Your task to perform on an android device: turn off smart reply in the gmail app Image 0: 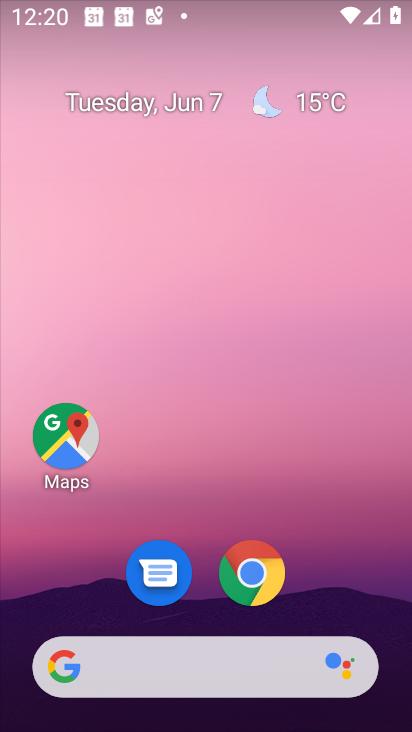
Step 0: press home button
Your task to perform on an android device: turn off smart reply in the gmail app Image 1: 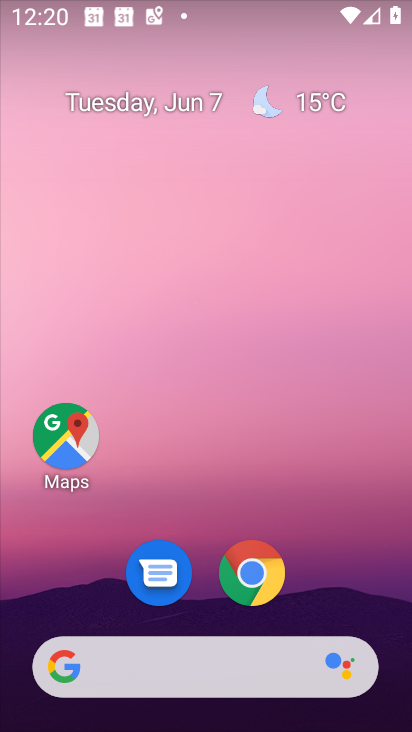
Step 1: drag from (355, 585) to (333, 186)
Your task to perform on an android device: turn off smart reply in the gmail app Image 2: 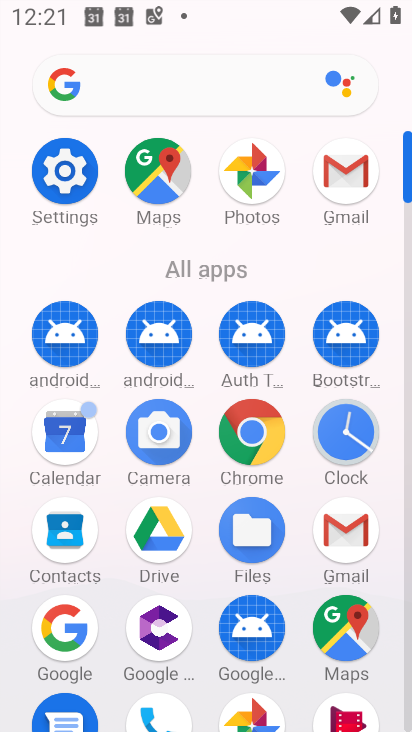
Step 2: click (350, 181)
Your task to perform on an android device: turn off smart reply in the gmail app Image 3: 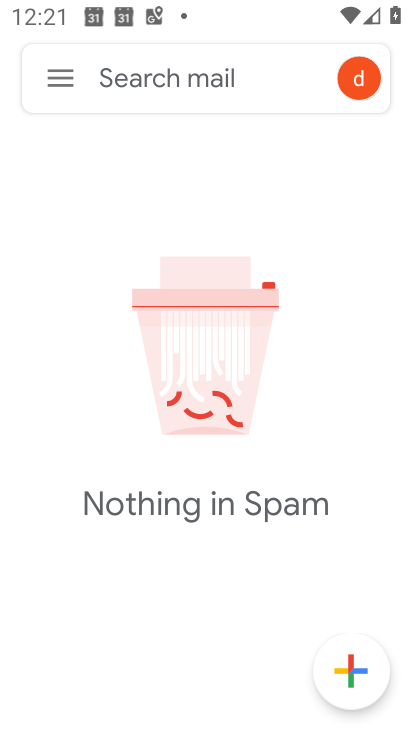
Step 3: click (63, 70)
Your task to perform on an android device: turn off smart reply in the gmail app Image 4: 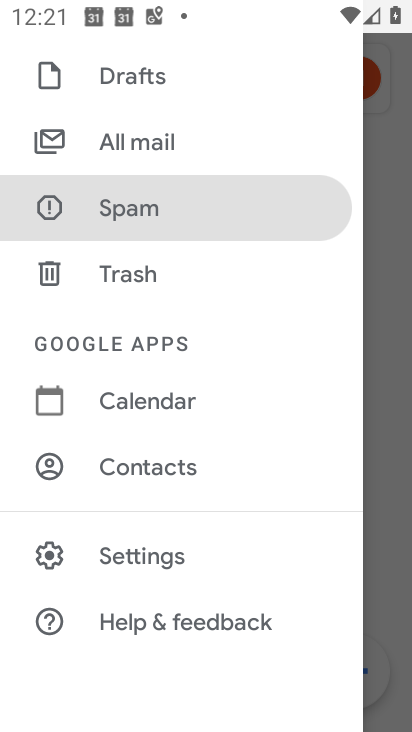
Step 4: click (149, 545)
Your task to perform on an android device: turn off smart reply in the gmail app Image 5: 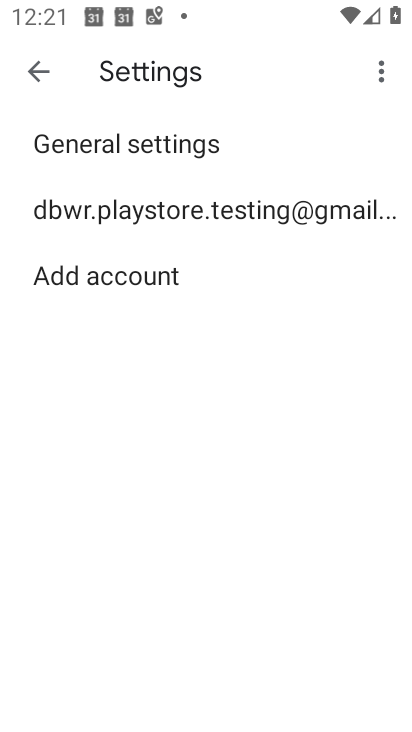
Step 5: click (163, 211)
Your task to perform on an android device: turn off smart reply in the gmail app Image 6: 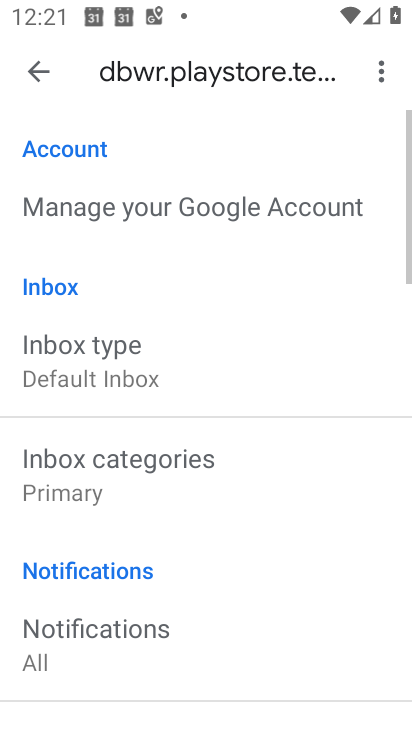
Step 6: drag from (313, 653) to (332, 4)
Your task to perform on an android device: turn off smart reply in the gmail app Image 7: 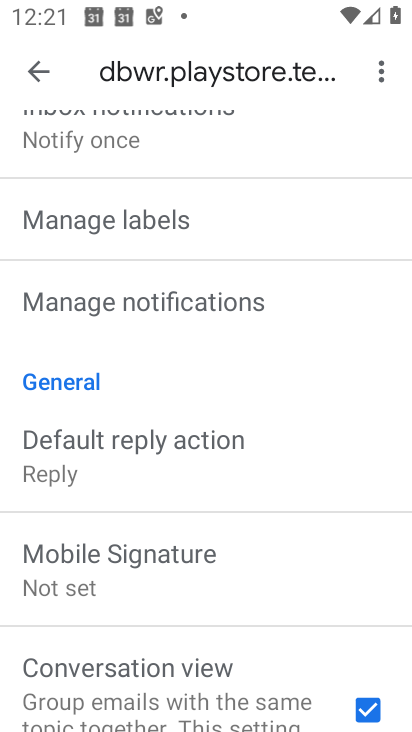
Step 7: drag from (262, 693) to (289, 93)
Your task to perform on an android device: turn off smart reply in the gmail app Image 8: 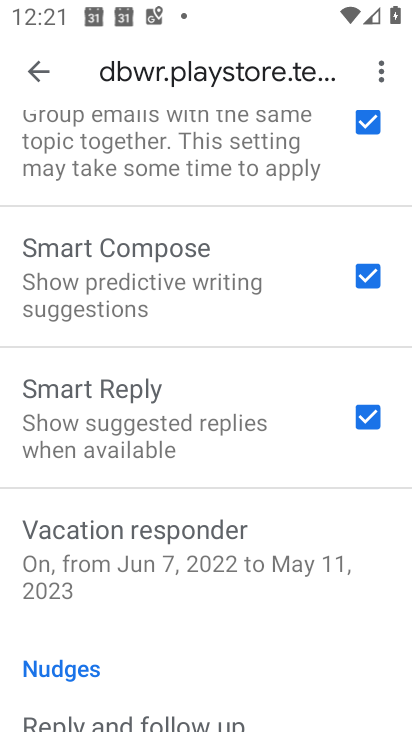
Step 8: click (371, 409)
Your task to perform on an android device: turn off smart reply in the gmail app Image 9: 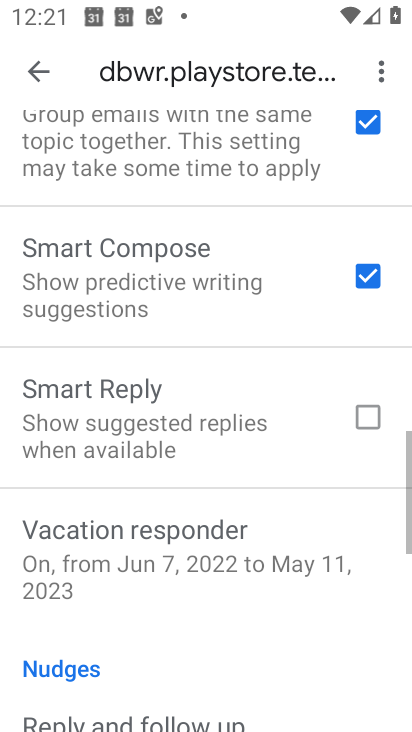
Step 9: task complete